Your task to perform on an android device: add a contact in the contacts app Image 0: 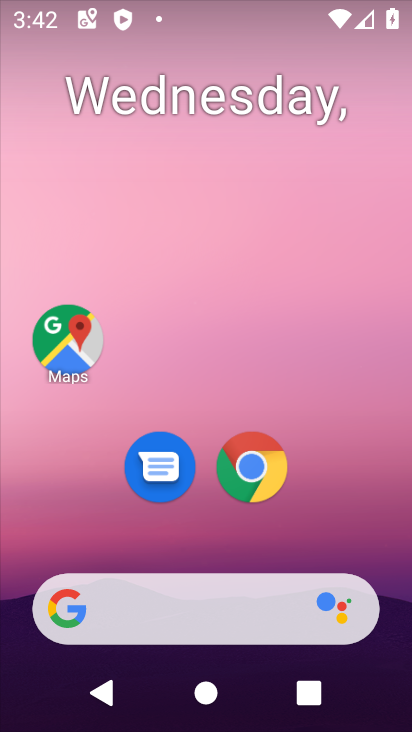
Step 0: drag from (387, 567) to (306, 132)
Your task to perform on an android device: add a contact in the contacts app Image 1: 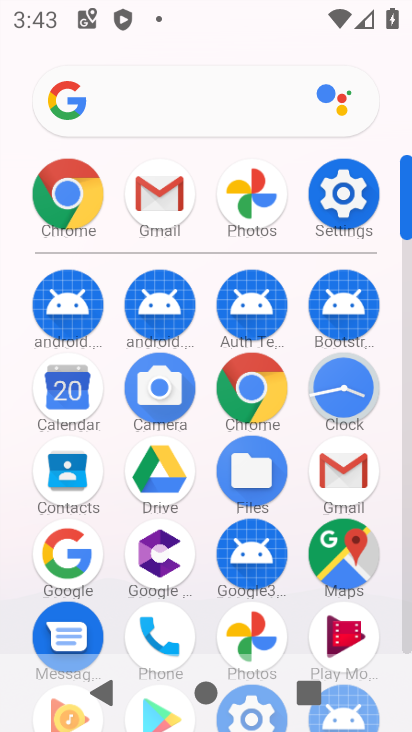
Step 1: click (59, 474)
Your task to perform on an android device: add a contact in the contacts app Image 2: 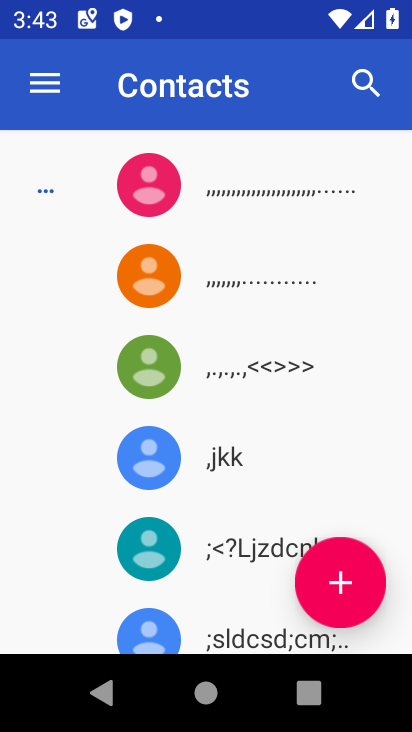
Step 2: click (341, 580)
Your task to perform on an android device: add a contact in the contacts app Image 3: 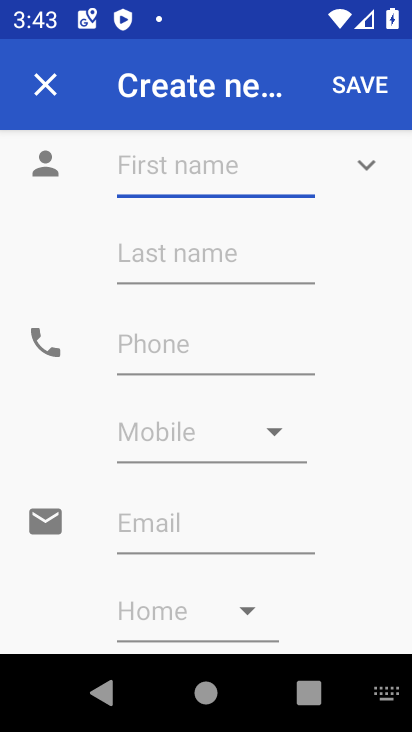
Step 3: type "aggfhjgj"
Your task to perform on an android device: add a contact in the contacts app Image 4: 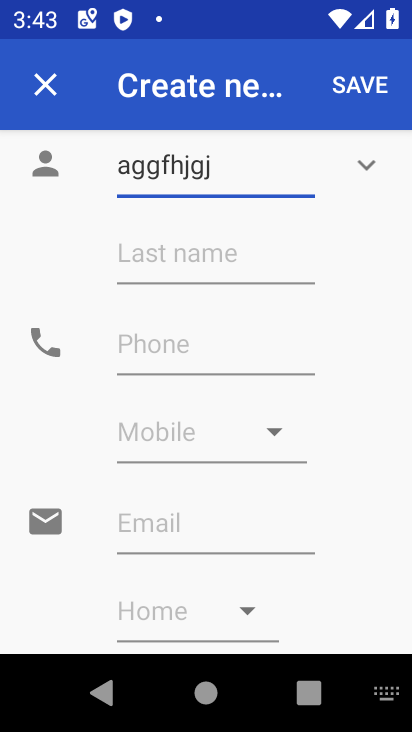
Step 4: click (170, 345)
Your task to perform on an android device: add a contact in the contacts app Image 5: 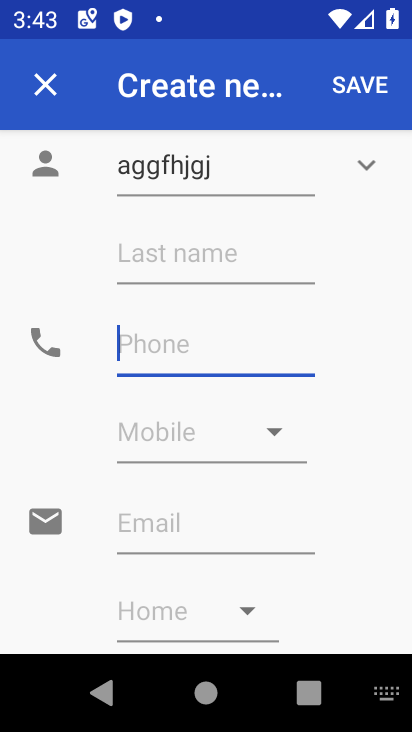
Step 5: type "0980045103"
Your task to perform on an android device: add a contact in the contacts app Image 6: 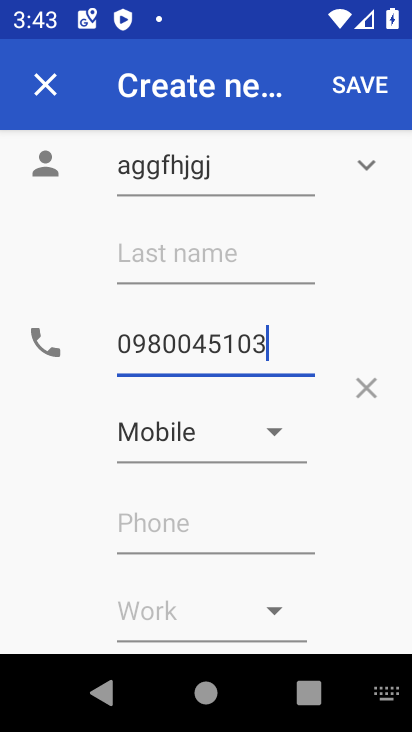
Step 6: click (273, 427)
Your task to perform on an android device: add a contact in the contacts app Image 7: 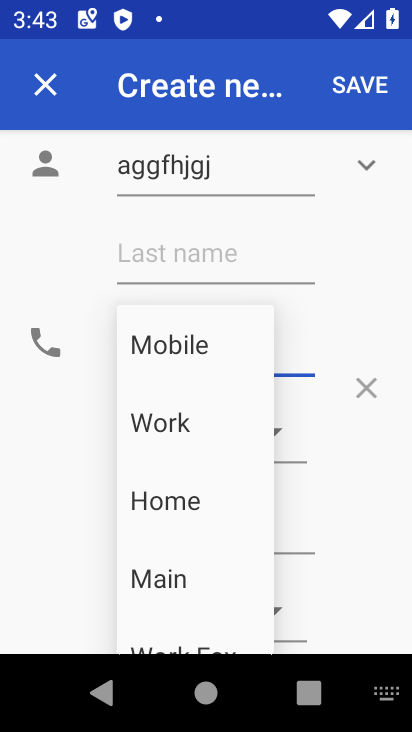
Step 7: click (169, 422)
Your task to perform on an android device: add a contact in the contacts app Image 8: 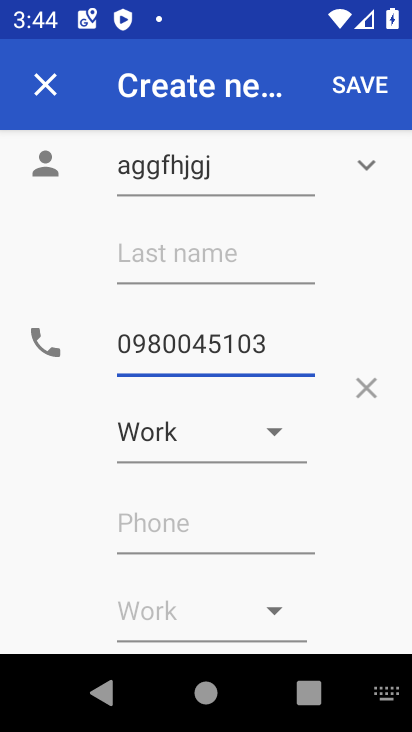
Step 8: click (357, 80)
Your task to perform on an android device: add a contact in the contacts app Image 9: 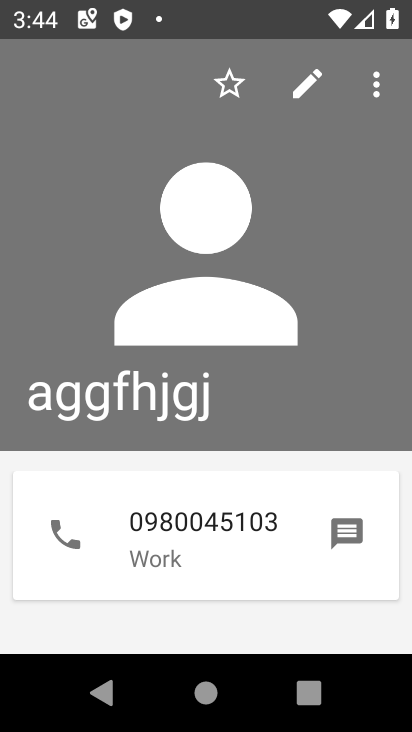
Step 9: task complete